Your task to perform on an android device: What's the weather going to be tomorrow? Image 0: 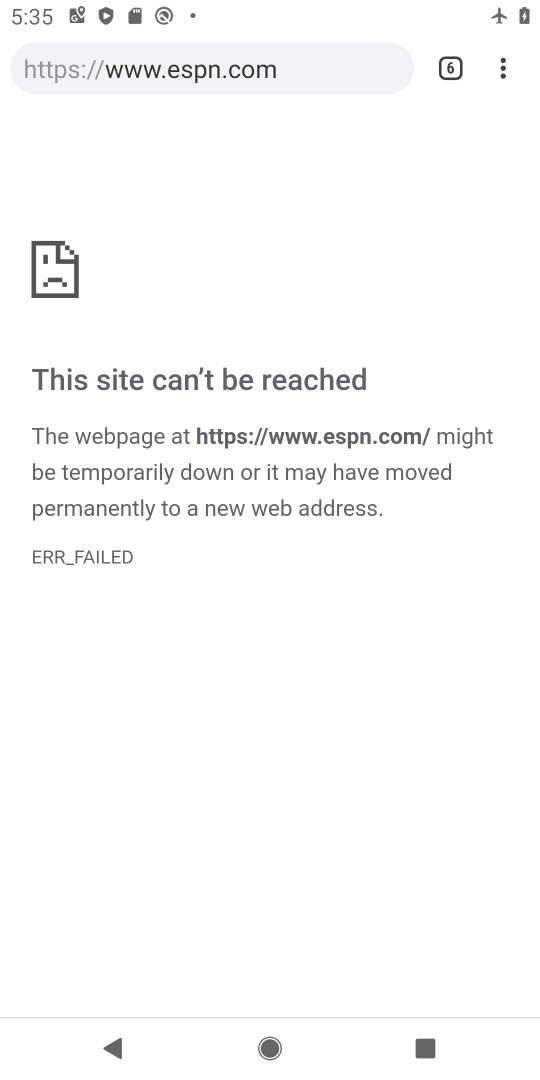
Step 0: press home button
Your task to perform on an android device: What's the weather going to be tomorrow? Image 1: 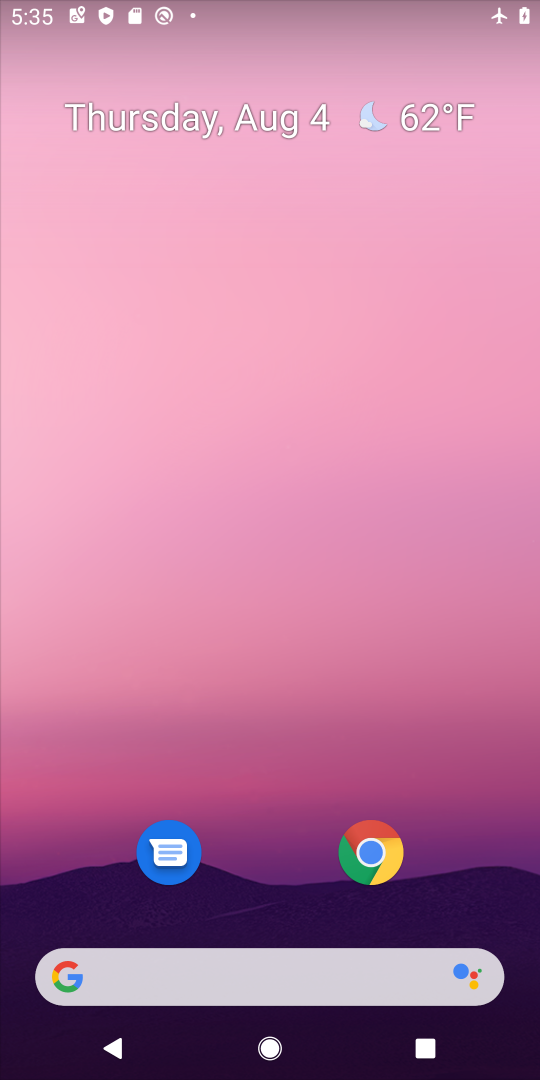
Step 1: drag from (276, 740) to (276, 67)
Your task to perform on an android device: What's the weather going to be tomorrow? Image 2: 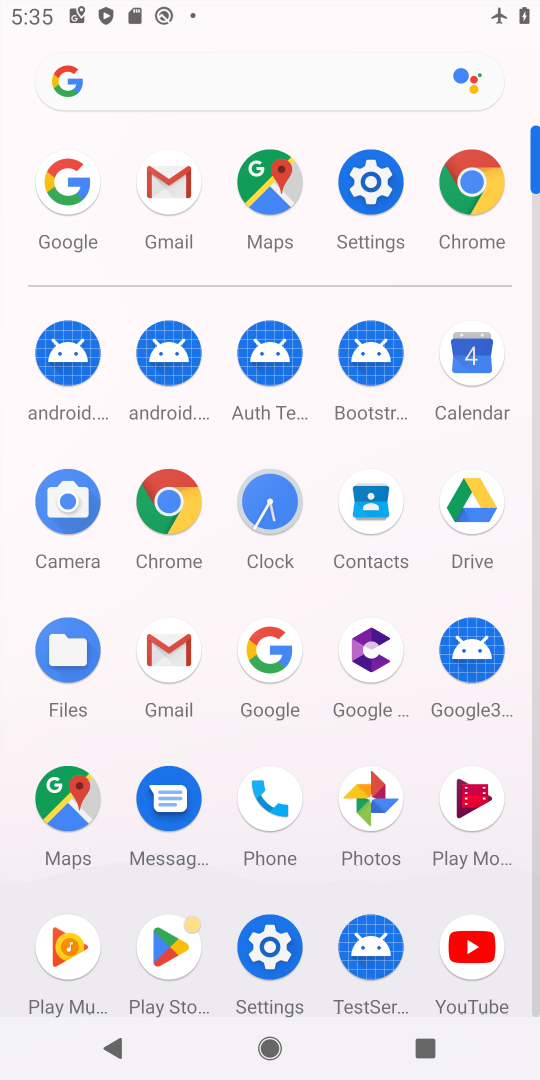
Step 2: click (255, 645)
Your task to perform on an android device: What's the weather going to be tomorrow? Image 3: 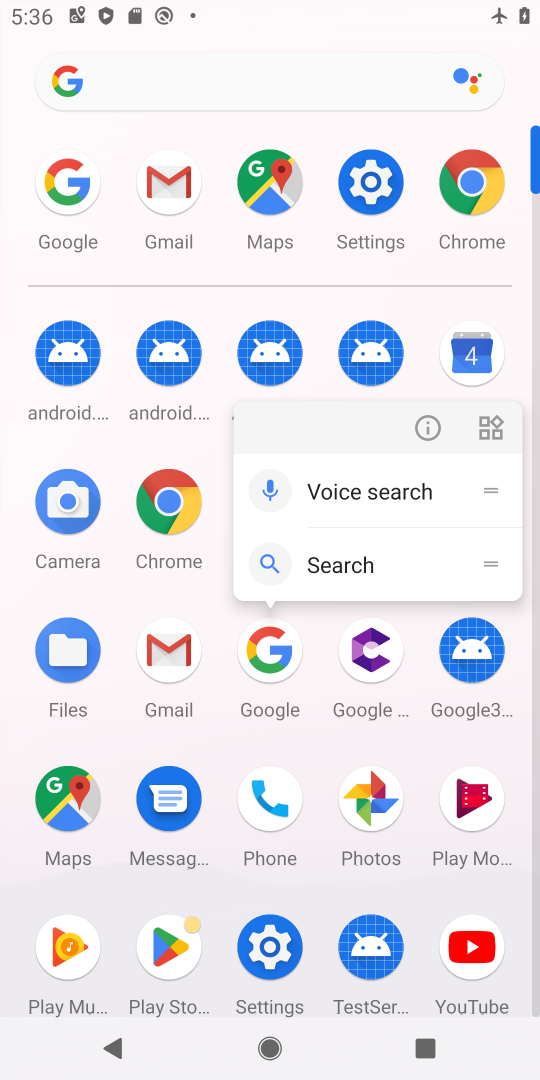
Step 3: click (271, 660)
Your task to perform on an android device: What's the weather going to be tomorrow? Image 4: 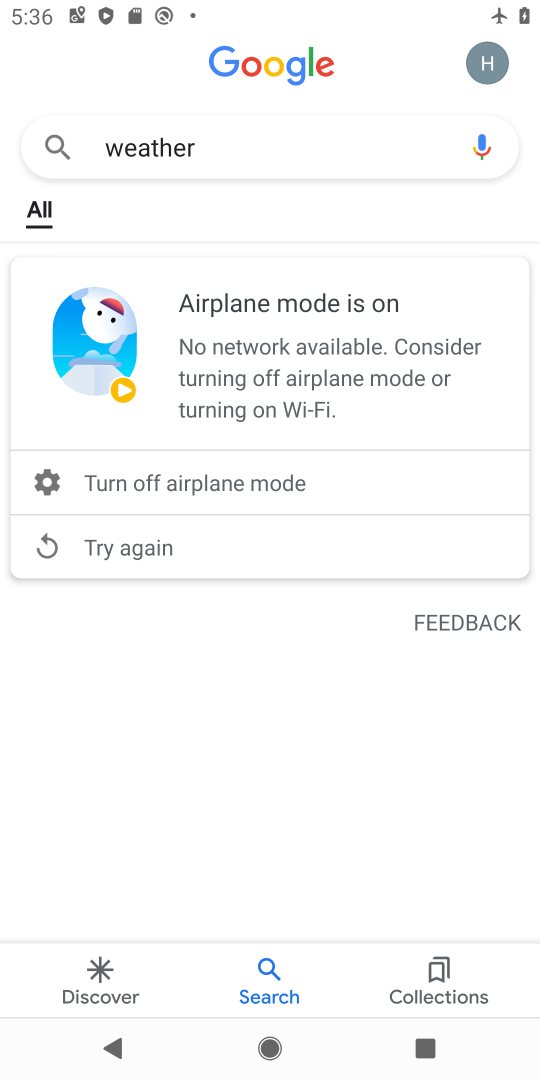
Step 4: task complete